Your task to perform on an android device: delete location history Image 0: 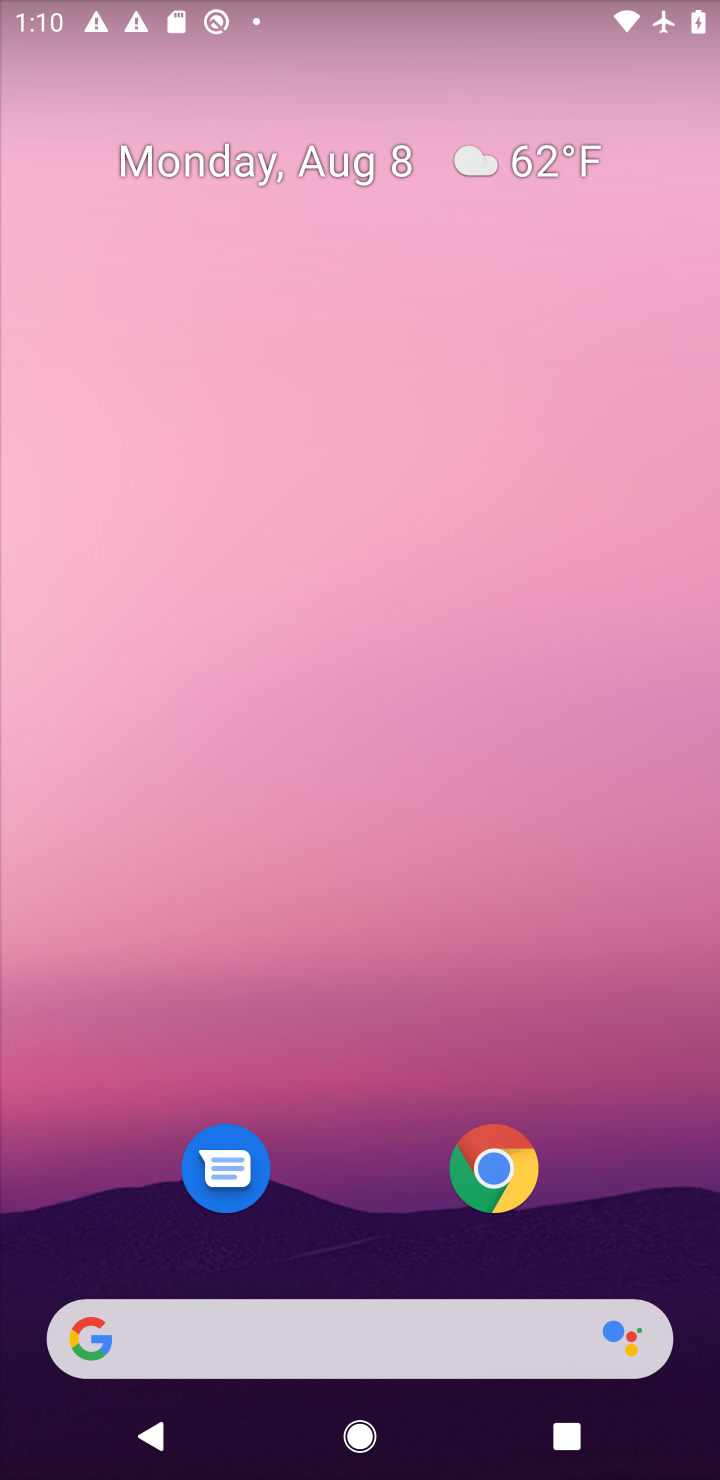
Step 0: drag from (304, 1292) to (153, 503)
Your task to perform on an android device: delete location history Image 1: 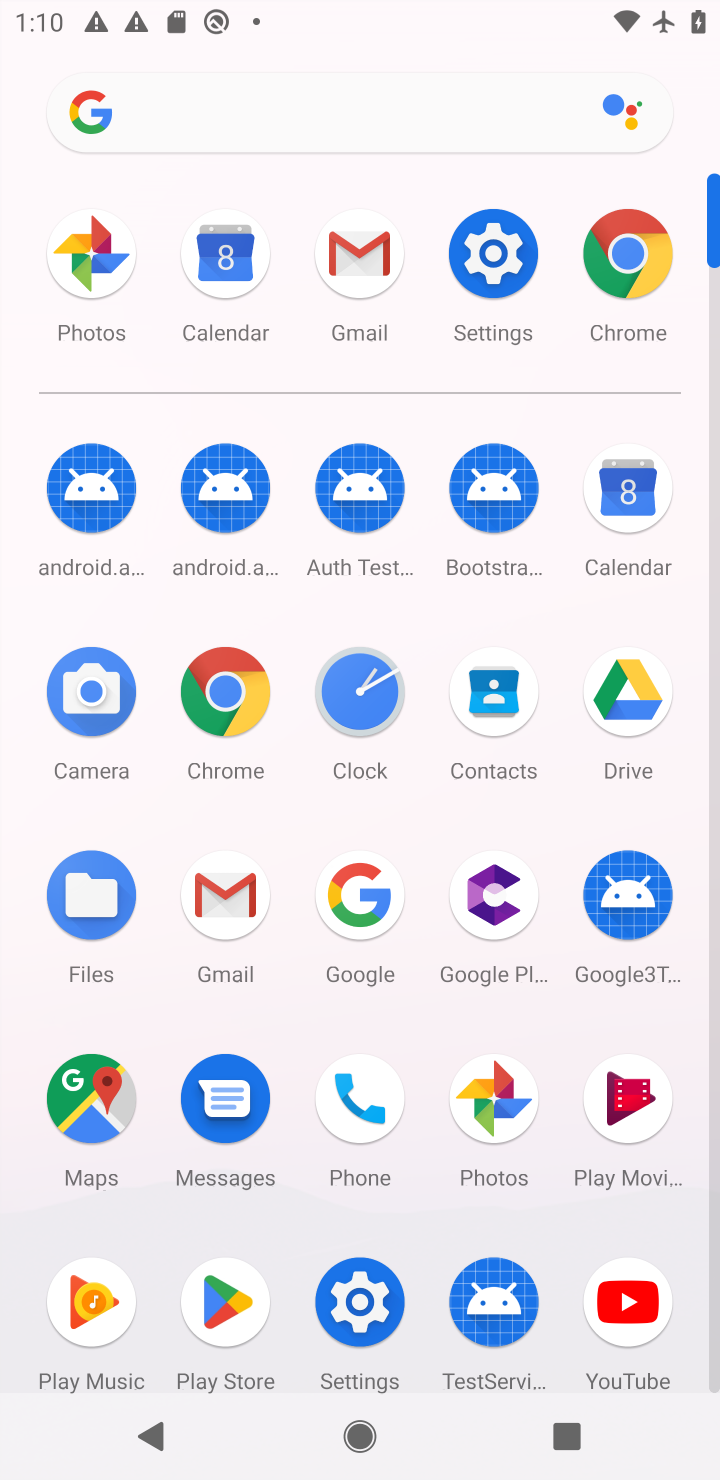
Step 1: click (474, 345)
Your task to perform on an android device: delete location history Image 2: 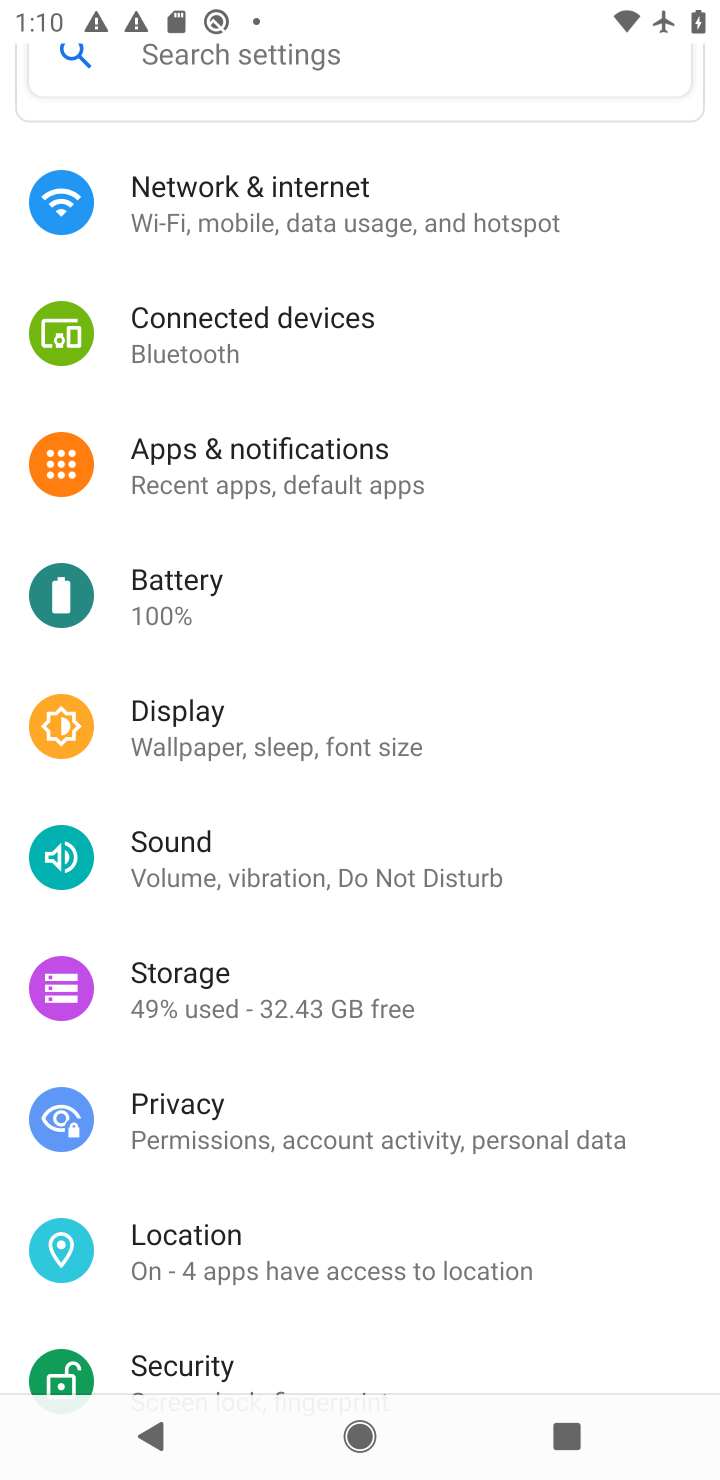
Step 2: task complete